Your task to perform on an android device: Open my contact list Image 0: 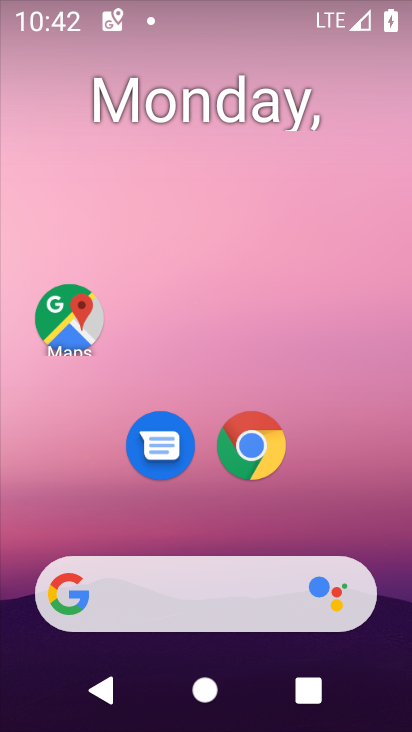
Step 0: drag from (272, 695) to (243, 78)
Your task to perform on an android device: Open my contact list Image 1: 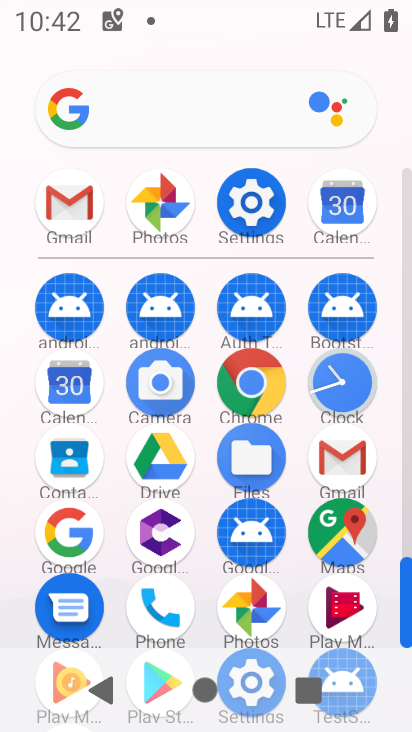
Step 1: click (77, 453)
Your task to perform on an android device: Open my contact list Image 2: 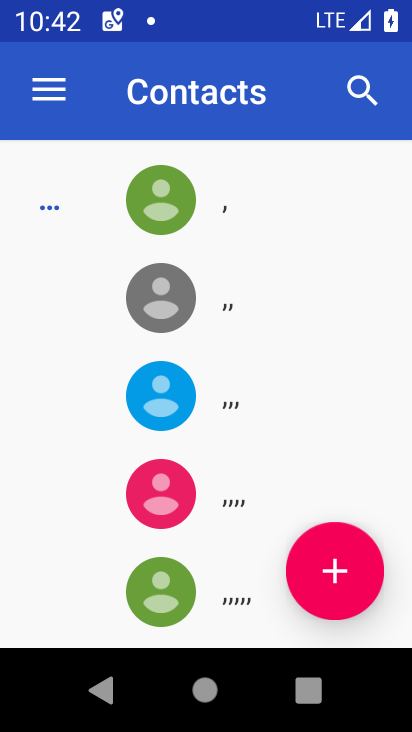
Step 2: task complete